Your task to perform on an android device: change notification settings in the gmail app Image 0: 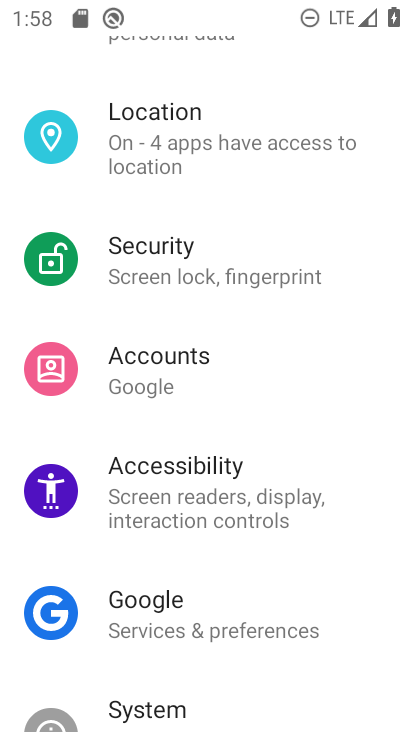
Step 0: press home button
Your task to perform on an android device: change notification settings in the gmail app Image 1: 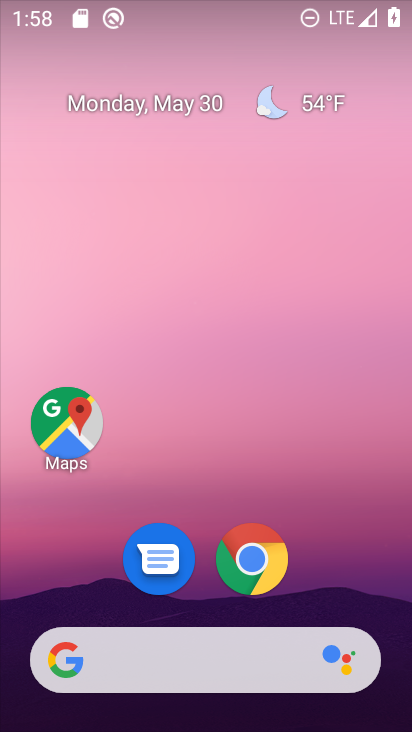
Step 1: drag from (305, 602) to (299, 0)
Your task to perform on an android device: change notification settings in the gmail app Image 2: 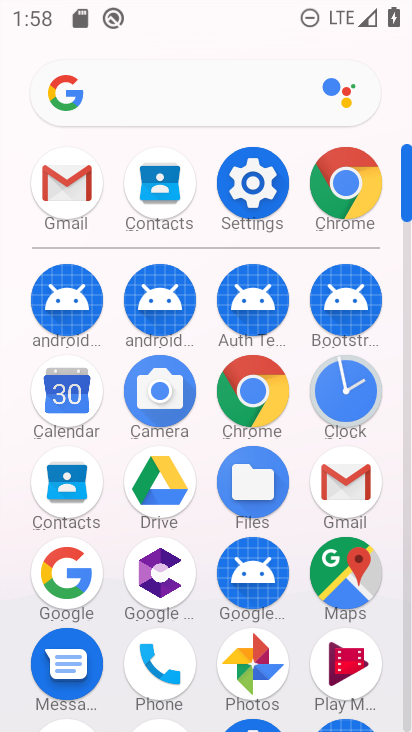
Step 2: click (61, 203)
Your task to perform on an android device: change notification settings in the gmail app Image 3: 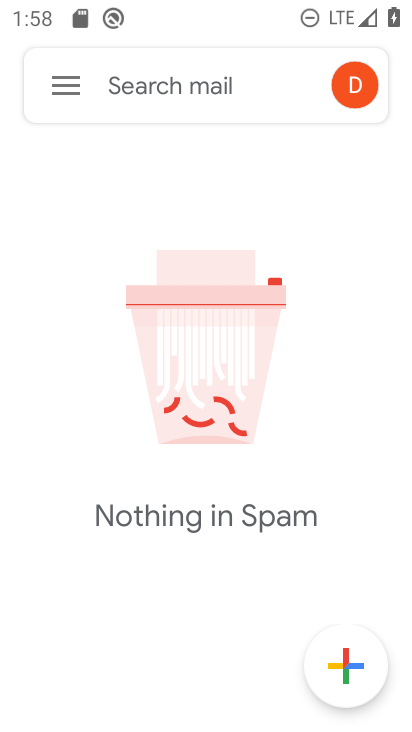
Step 3: click (82, 80)
Your task to perform on an android device: change notification settings in the gmail app Image 4: 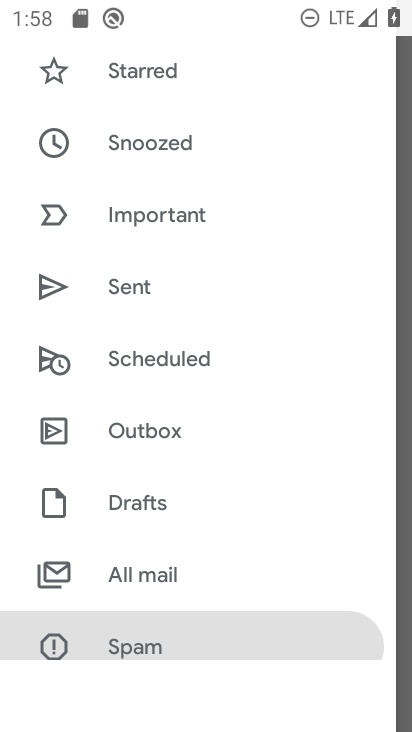
Step 4: drag from (168, 582) to (268, 171)
Your task to perform on an android device: change notification settings in the gmail app Image 5: 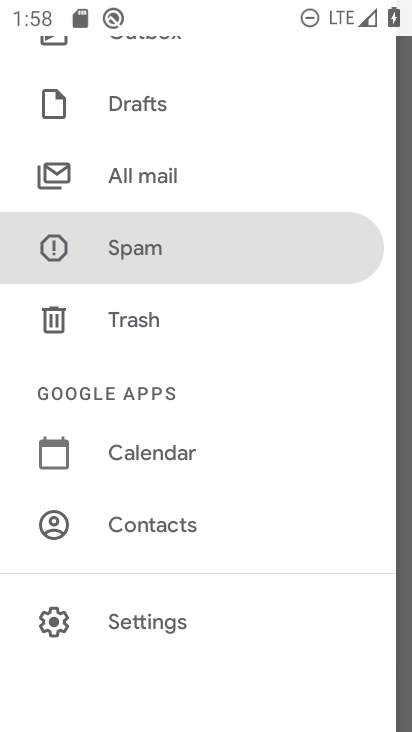
Step 5: click (152, 626)
Your task to perform on an android device: change notification settings in the gmail app Image 6: 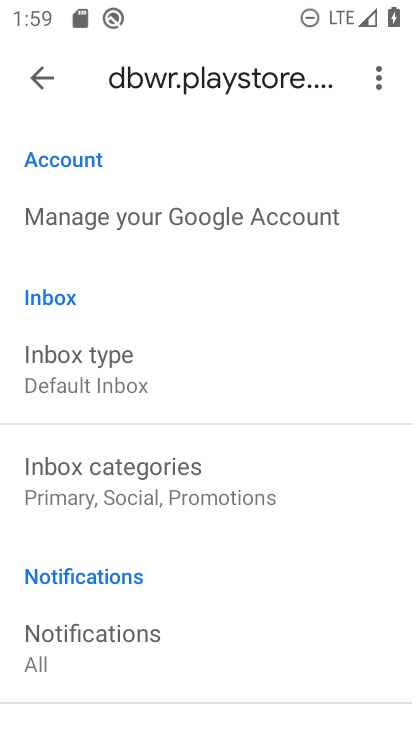
Step 6: drag from (201, 631) to (255, 248)
Your task to perform on an android device: change notification settings in the gmail app Image 7: 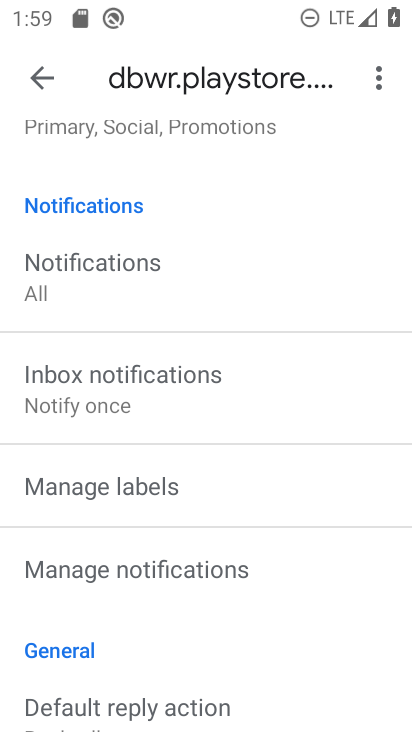
Step 7: click (210, 573)
Your task to perform on an android device: change notification settings in the gmail app Image 8: 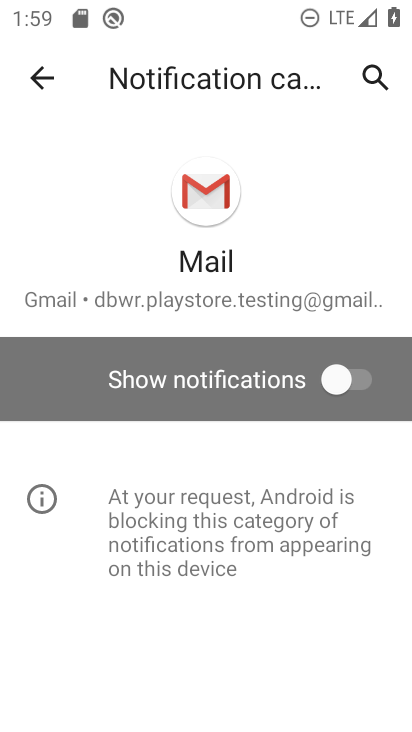
Step 8: click (347, 383)
Your task to perform on an android device: change notification settings in the gmail app Image 9: 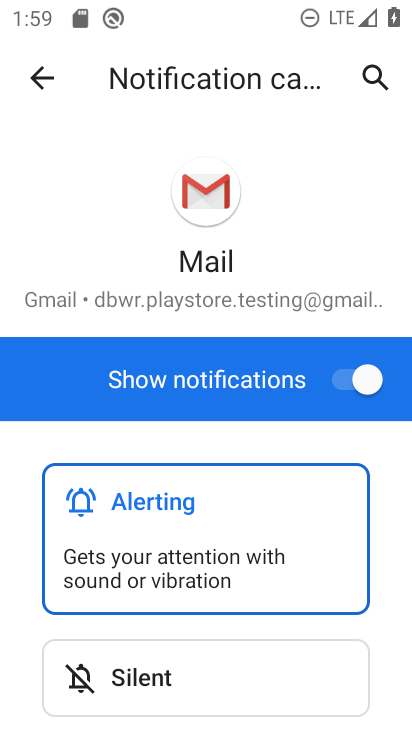
Step 9: task complete